Your task to perform on an android device: turn on improve location accuracy Image 0: 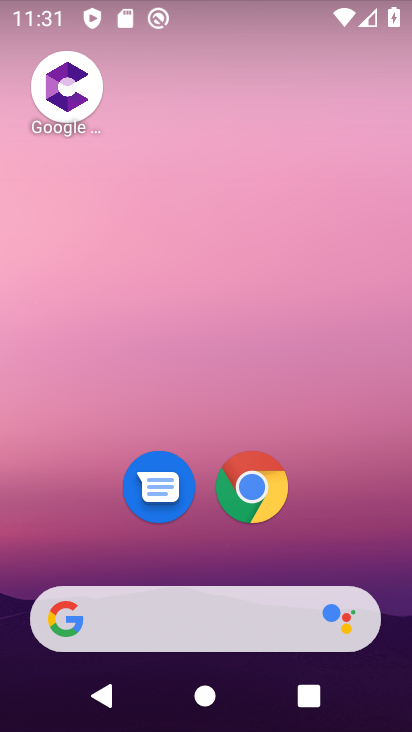
Step 0: press home button
Your task to perform on an android device: turn on improve location accuracy Image 1: 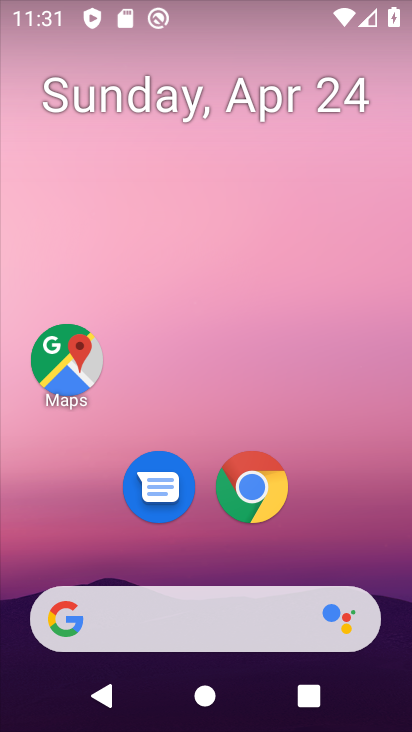
Step 1: drag from (395, 618) to (262, 65)
Your task to perform on an android device: turn on improve location accuracy Image 2: 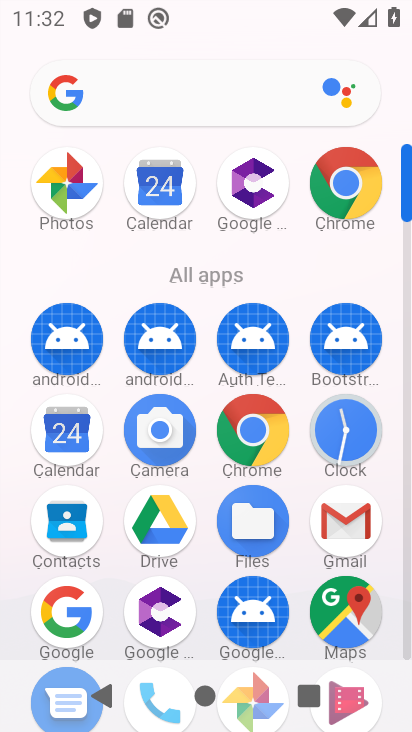
Step 2: click (407, 655)
Your task to perform on an android device: turn on improve location accuracy Image 3: 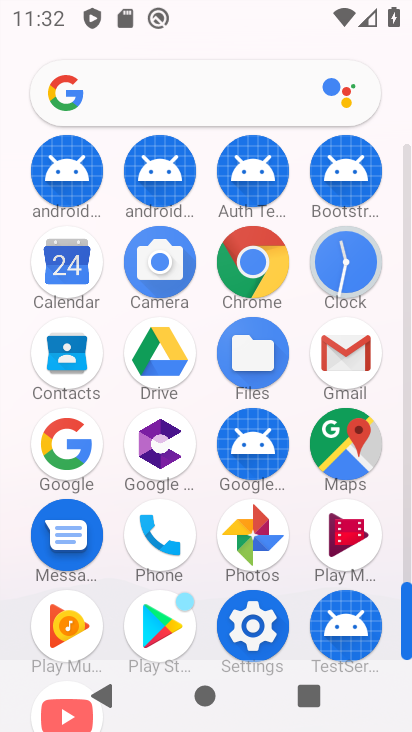
Step 3: click (263, 648)
Your task to perform on an android device: turn on improve location accuracy Image 4: 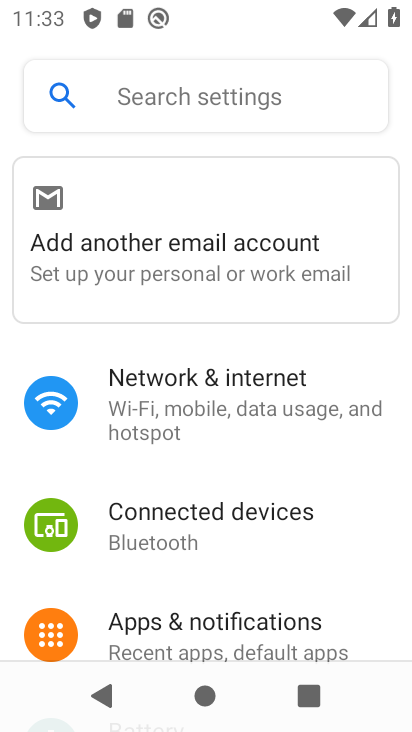
Step 4: drag from (143, 613) to (195, 138)
Your task to perform on an android device: turn on improve location accuracy Image 5: 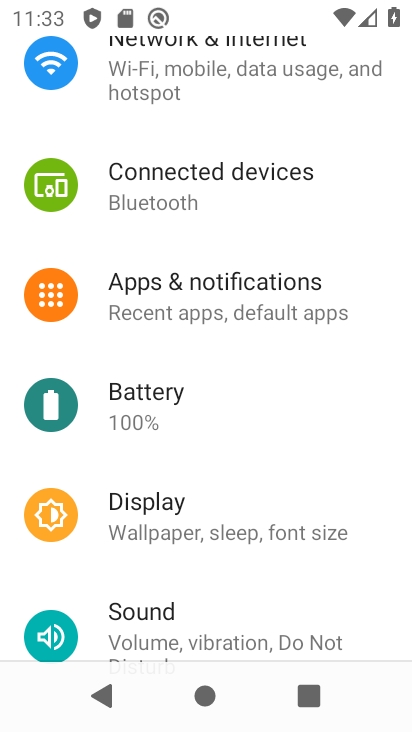
Step 5: drag from (171, 549) to (213, 130)
Your task to perform on an android device: turn on improve location accuracy Image 6: 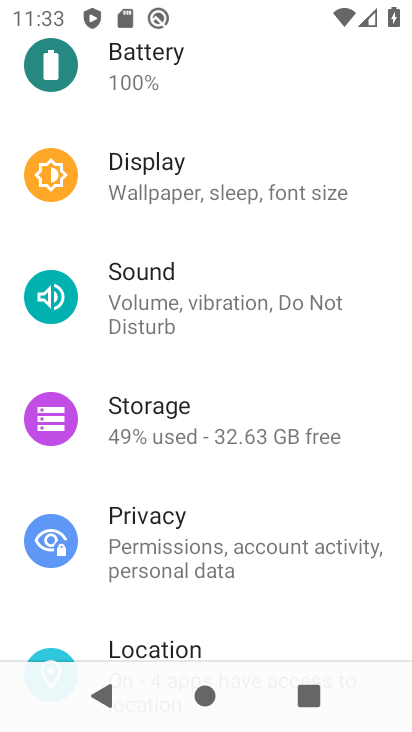
Step 6: click (223, 640)
Your task to perform on an android device: turn on improve location accuracy Image 7: 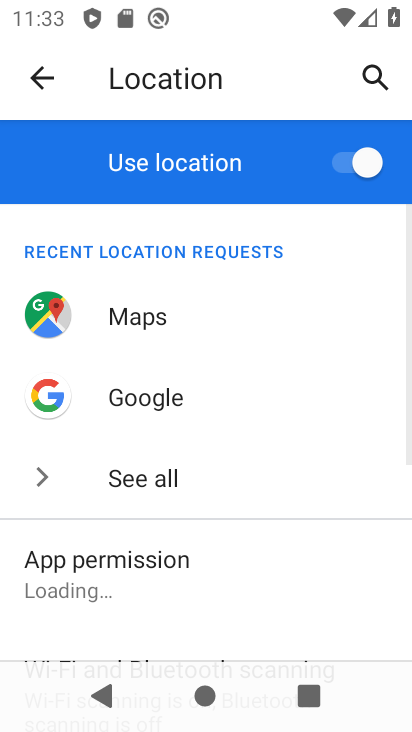
Step 7: drag from (249, 576) to (263, 324)
Your task to perform on an android device: turn on improve location accuracy Image 8: 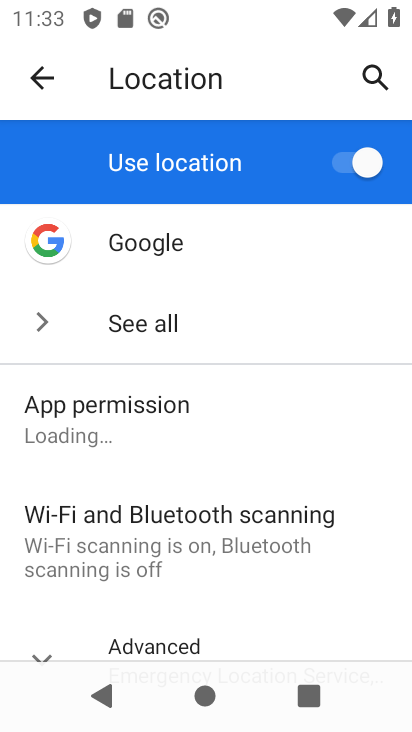
Step 8: drag from (211, 577) to (295, 272)
Your task to perform on an android device: turn on improve location accuracy Image 9: 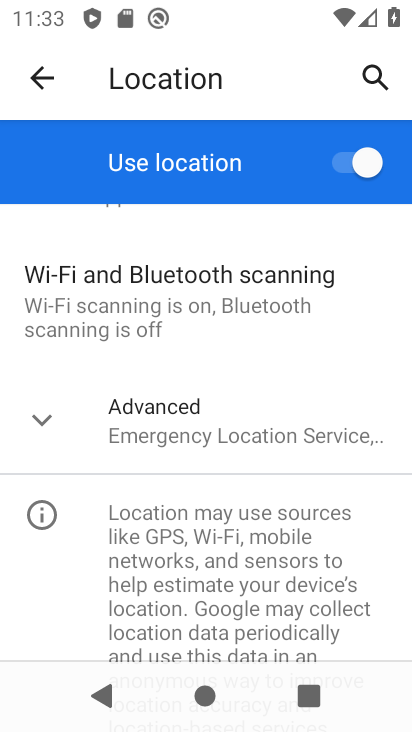
Step 9: click (164, 424)
Your task to perform on an android device: turn on improve location accuracy Image 10: 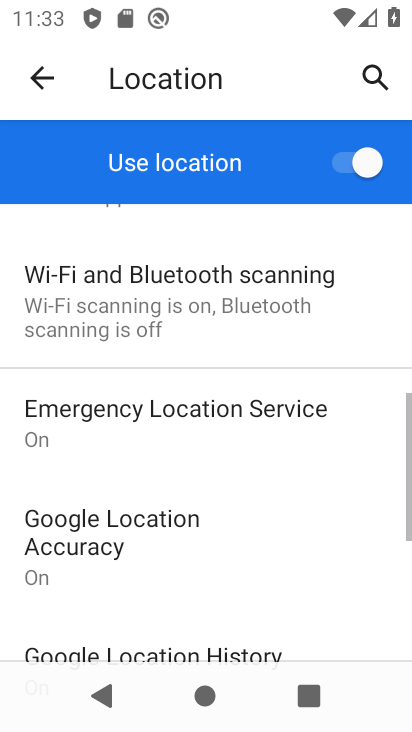
Step 10: click (158, 519)
Your task to perform on an android device: turn on improve location accuracy Image 11: 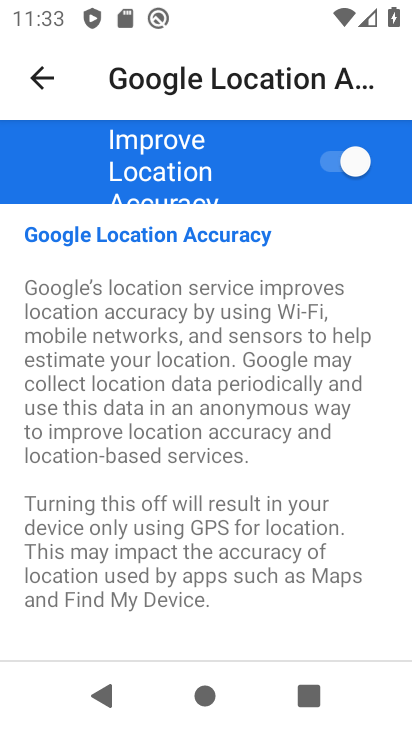
Step 11: task complete